Your task to perform on an android device: turn off location history Image 0: 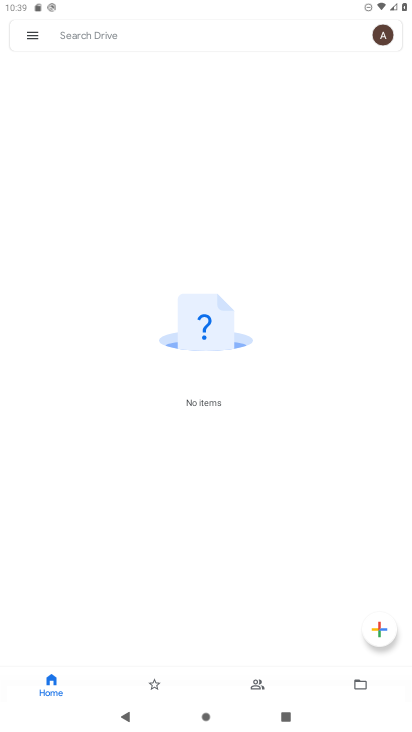
Step 0: press home button
Your task to perform on an android device: turn off location history Image 1: 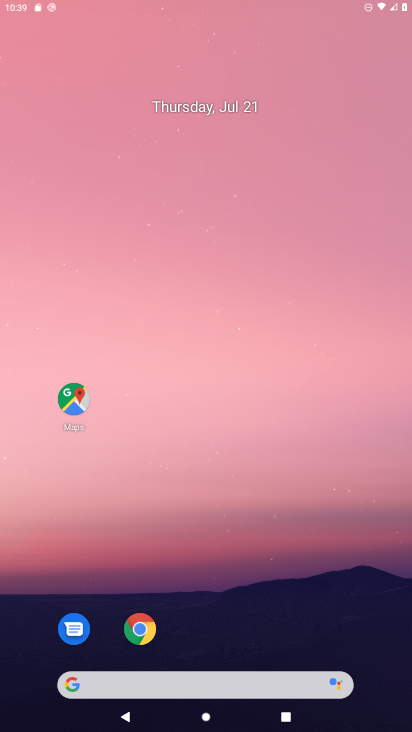
Step 1: drag from (225, 653) to (281, 94)
Your task to perform on an android device: turn off location history Image 2: 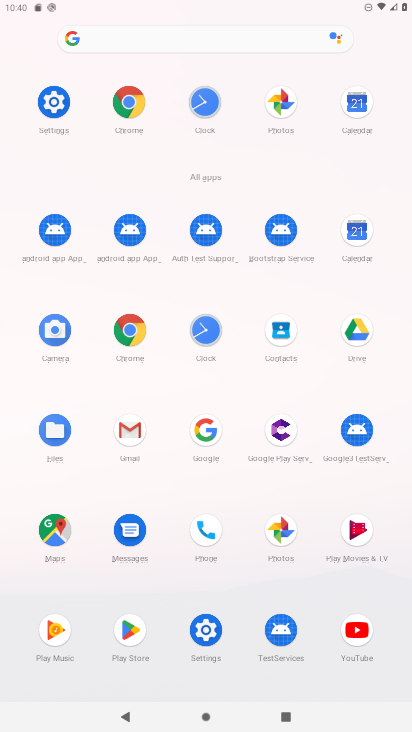
Step 2: click (55, 96)
Your task to perform on an android device: turn off location history Image 3: 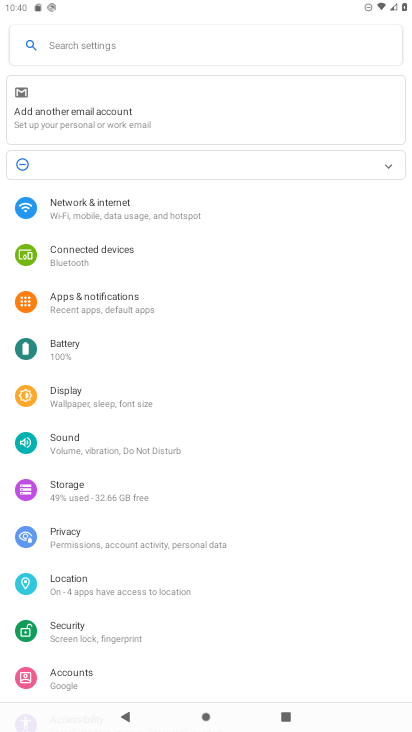
Step 3: click (67, 583)
Your task to perform on an android device: turn off location history Image 4: 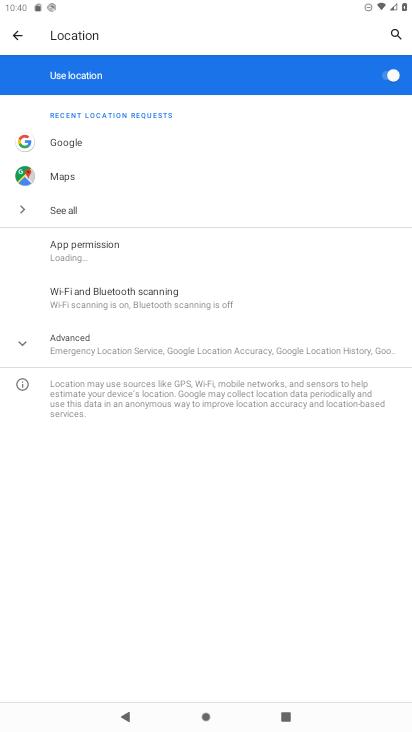
Step 4: click (78, 345)
Your task to perform on an android device: turn off location history Image 5: 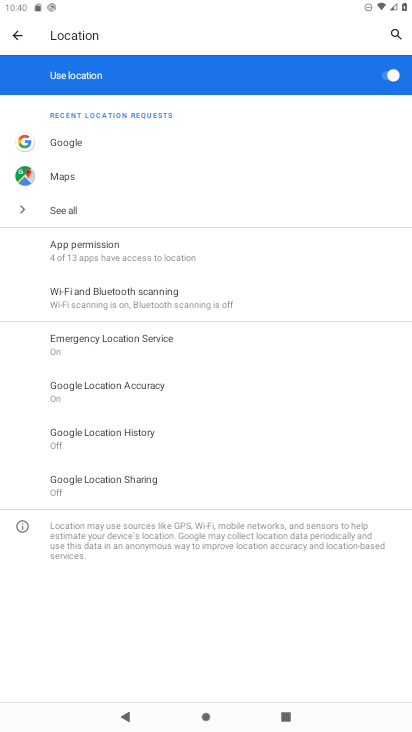
Step 5: click (128, 429)
Your task to perform on an android device: turn off location history Image 6: 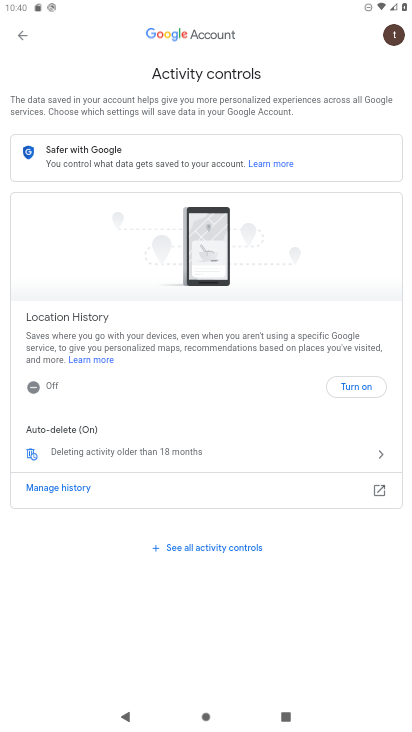
Step 6: task complete